Your task to perform on an android device: turn on javascript in the chrome app Image 0: 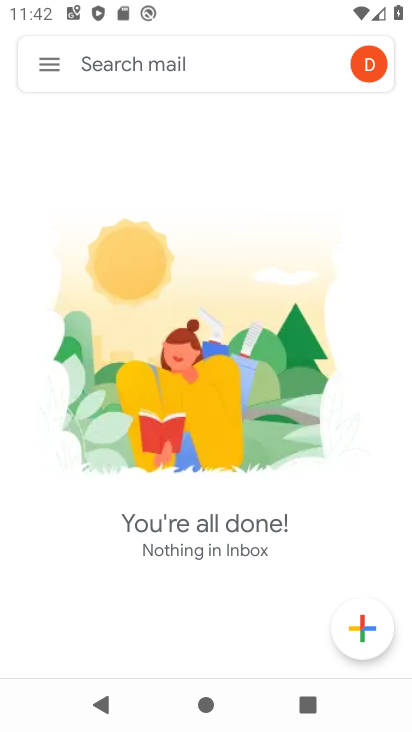
Step 0: press home button
Your task to perform on an android device: turn on javascript in the chrome app Image 1: 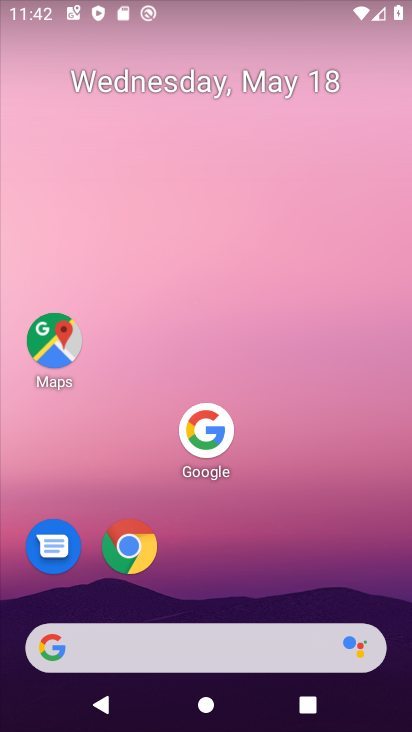
Step 1: click (129, 542)
Your task to perform on an android device: turn on javascript in the chrome app Image 2: 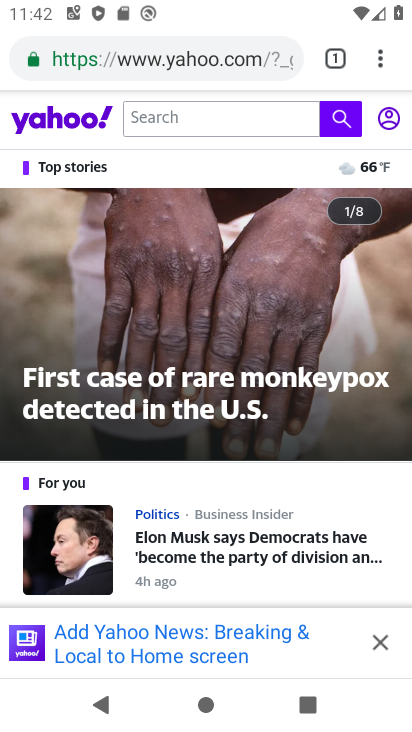
Step 2: click (374, 57)
Your task to perform on an android device: turn on javascript in the chrome app Image 3: 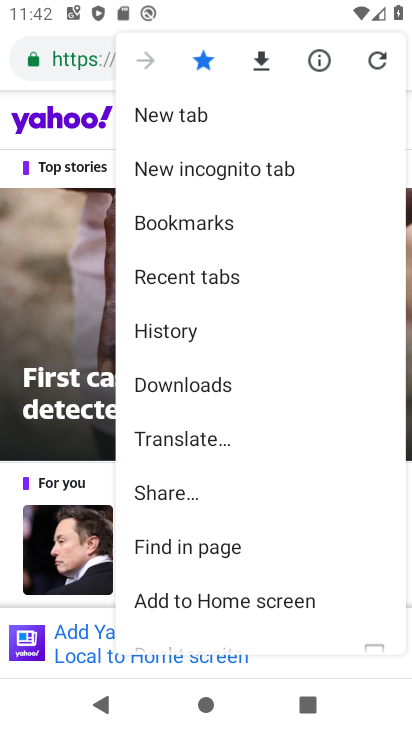
Step 3: drag from (274, 565) to (276, 188)
Your task to perform on an android device: turn on javascript in the chrome app Image 4: 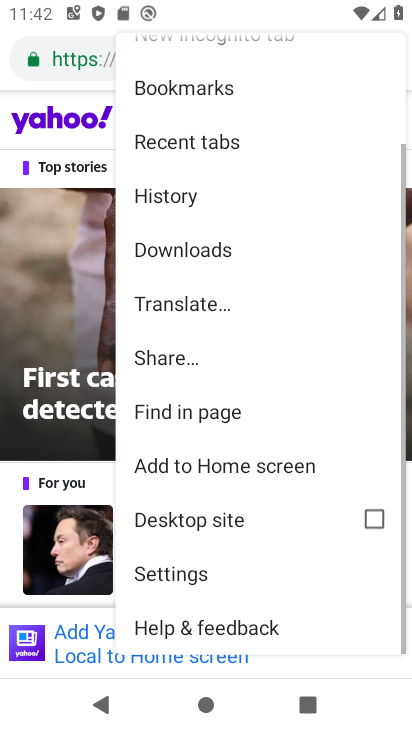
Step 4: click (185, 579)
Your task to perform on an android device: turn on javascript in the chrome app Image 5: 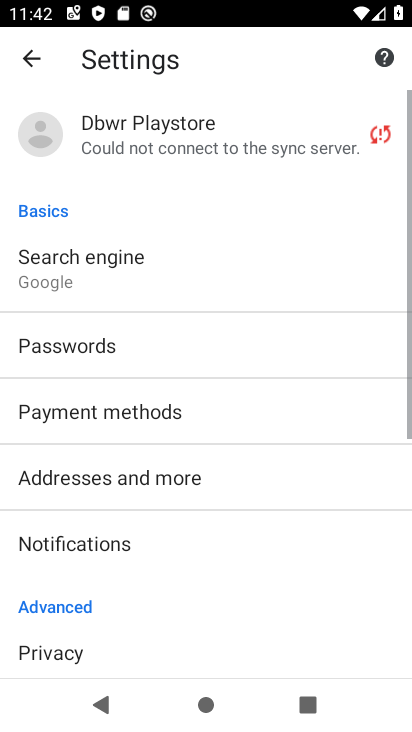
Step 5: drag from (189, 569) to (187, 221)
Your task to perform on an android device: turn on javascript in the chrome app Image 6: 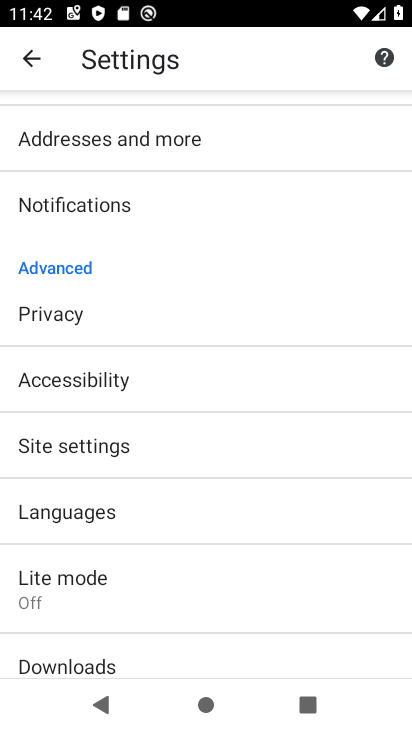
Step 6: click (128, 448)
Your task to perform on an android device: turn on javascript in the chrome app Image 7: 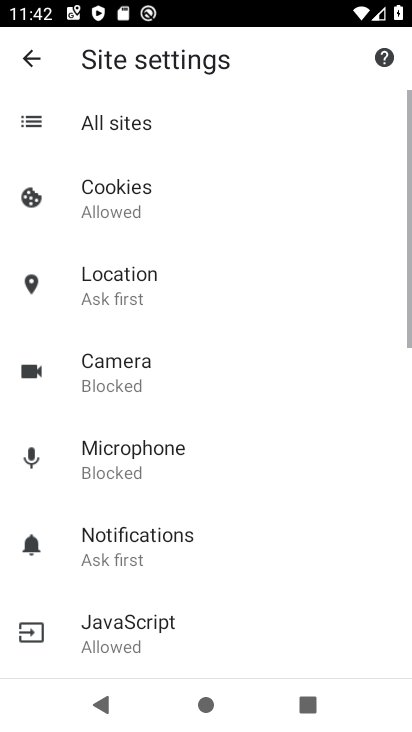
Step 7: click (157, 642)
Your task to perform on an android device: turn on javascript in the chrome app Image 8: 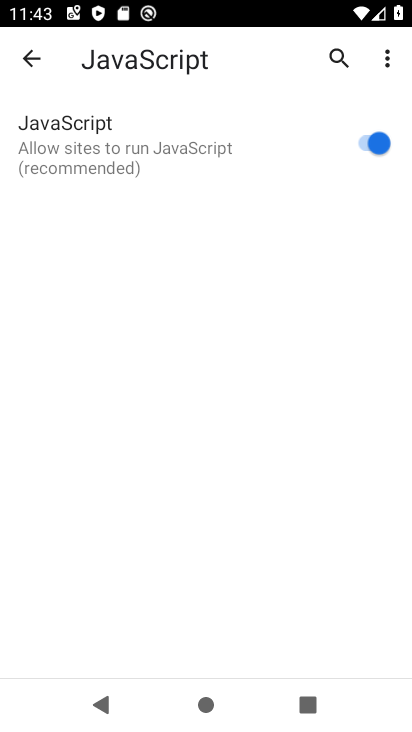
Step 8: task complete